Your task to perform on an android device: Open privacy settings Image 0: 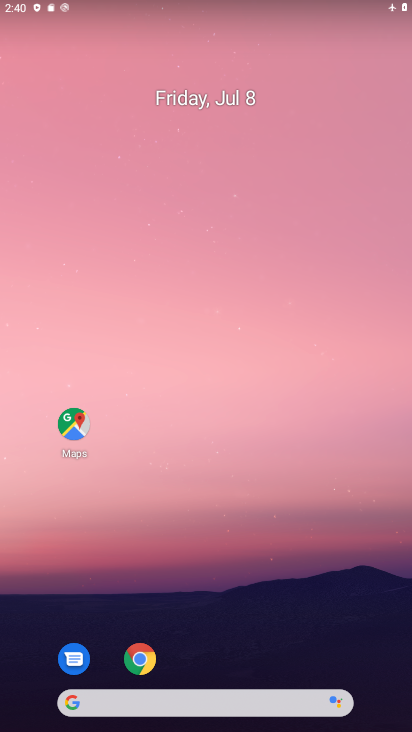
Step 0: drag from (265, 628) to (265, 196)
Your task to perform on an android device: Open privacy settings Image 1: 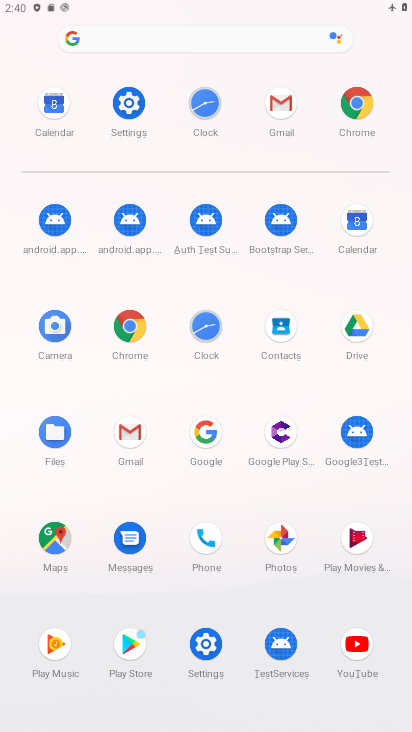
Step 1: click (209, 651)
Your task to perform on an android device: Open privacy settings Image 2: 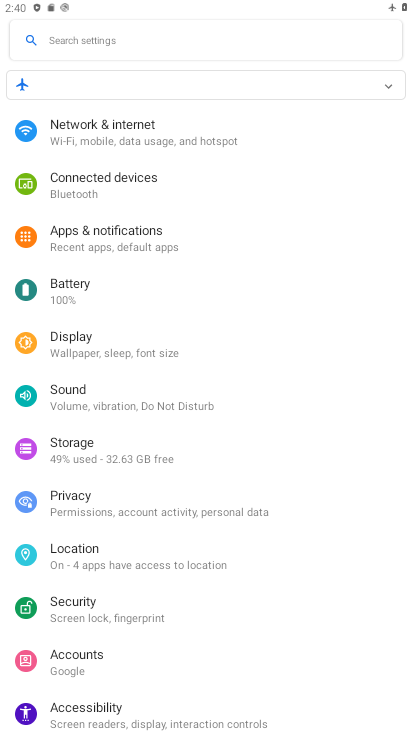
Step 2: click (129, 499)
Your task to perform on an android device: Open privacy settings Image 3: 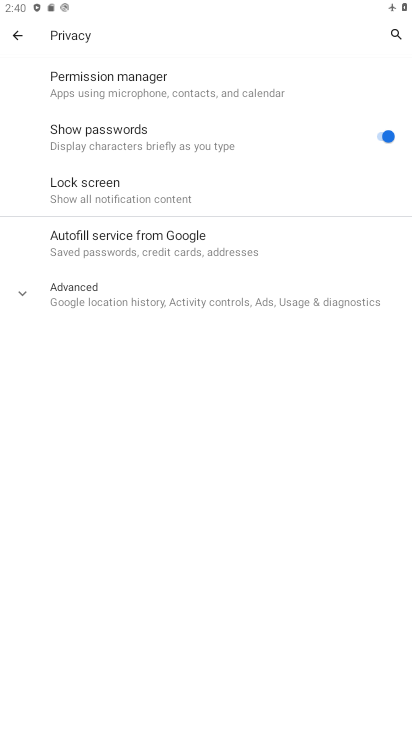
Step 3: task complete